Your task to perform on an android device: open app "Microsoft Excel" Image 0: 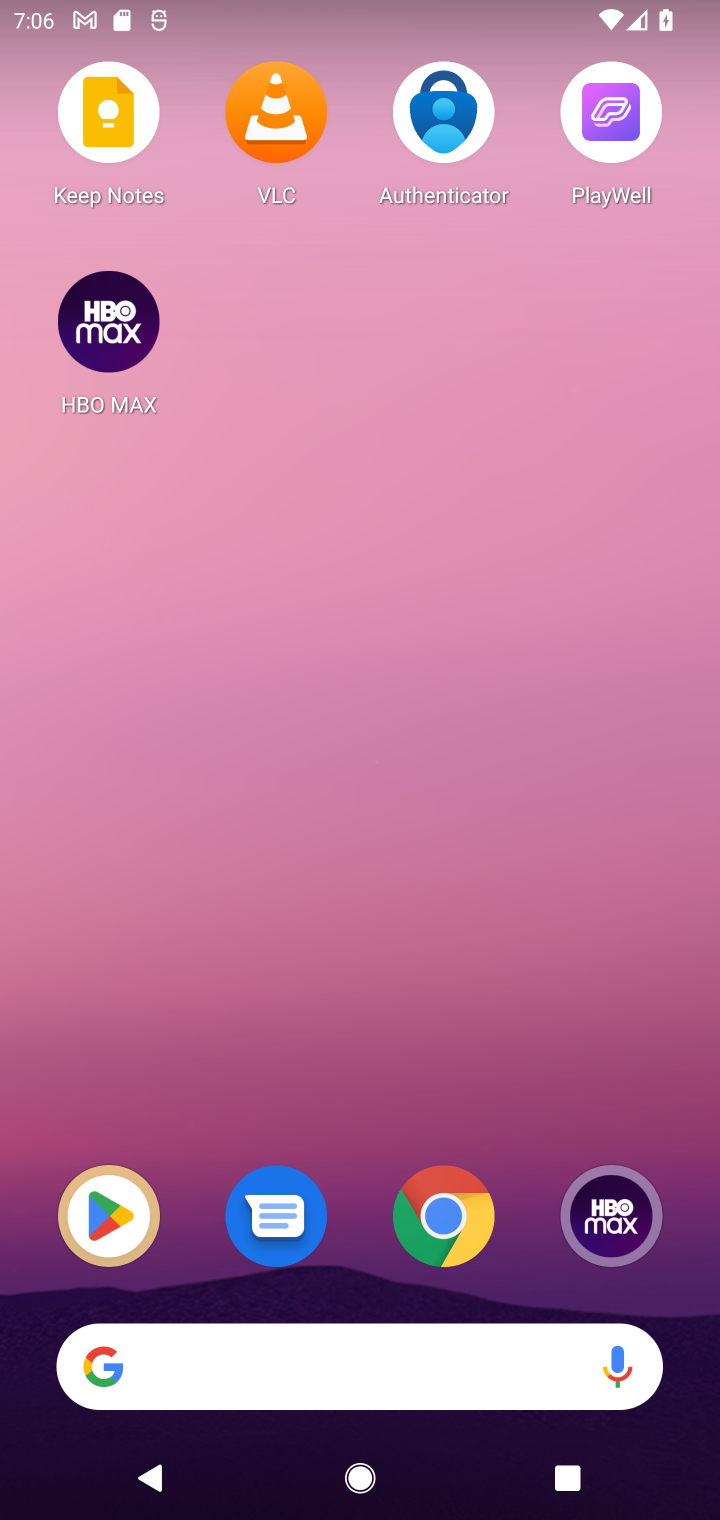
Step 0: press home button
Your task to perform on an android device: open app "Microsoft Excel" Image 1: 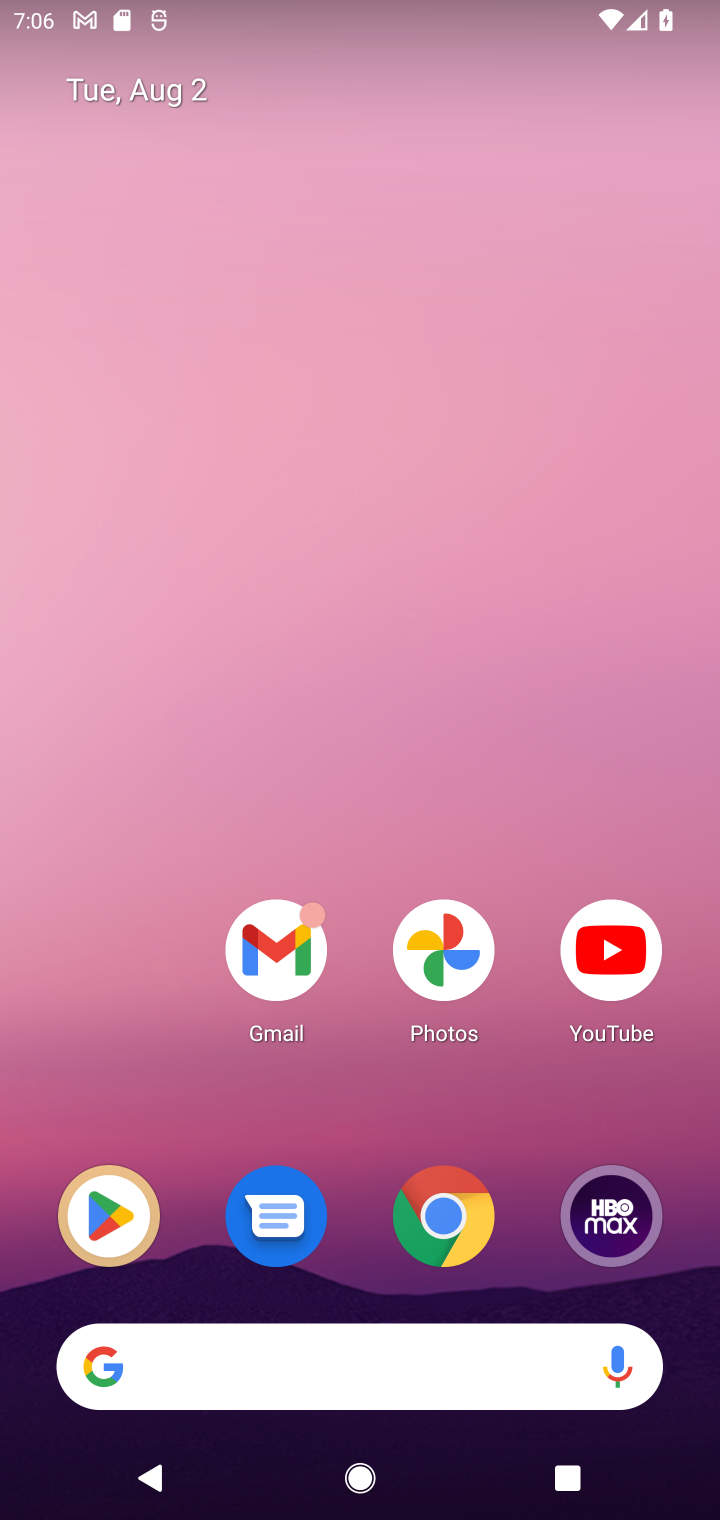
Step 1: click (115, 1212)
Your task to perform on an android device: open app "Microsoft Excel" Image 2: 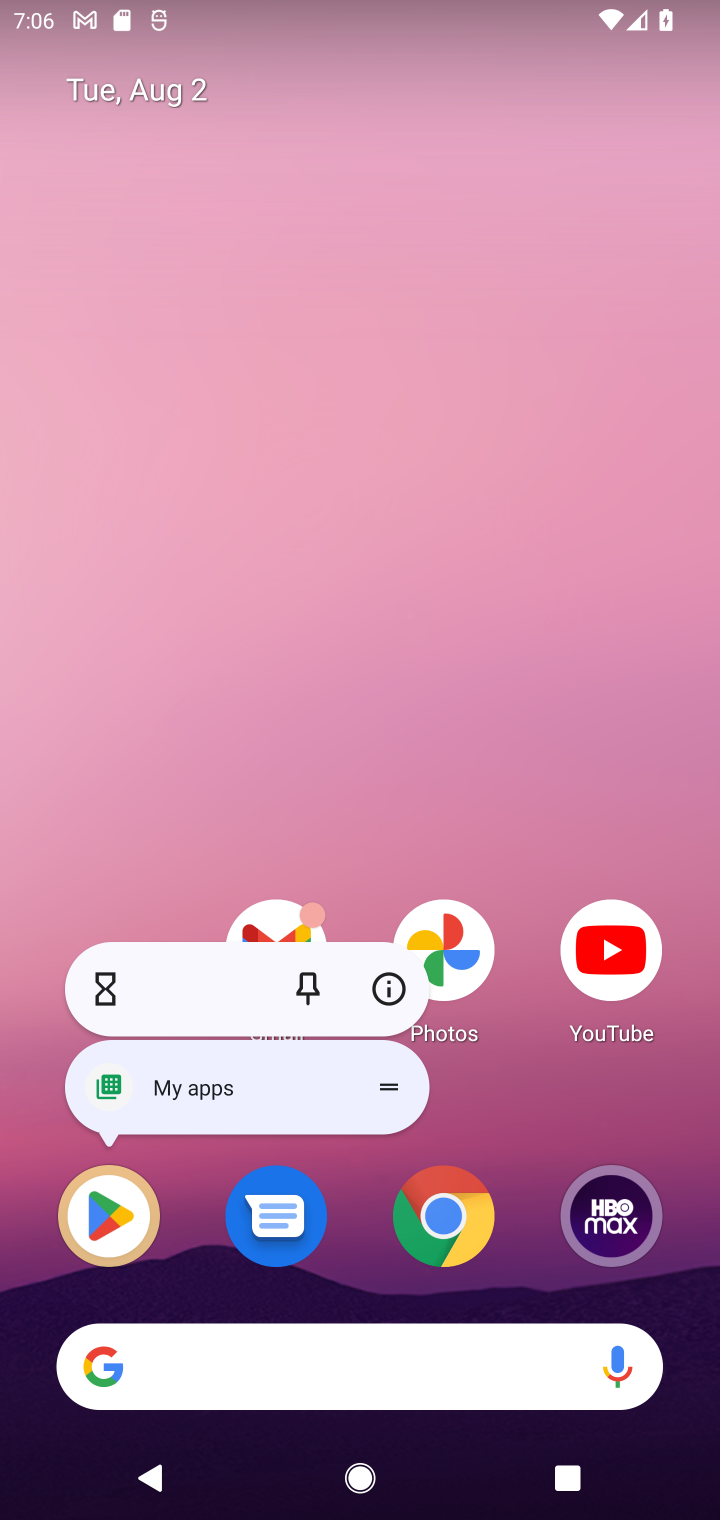
Step 2: click (115, 1212)
Your task to perform on an android device: open app "Microsoft Excel" Image 3: 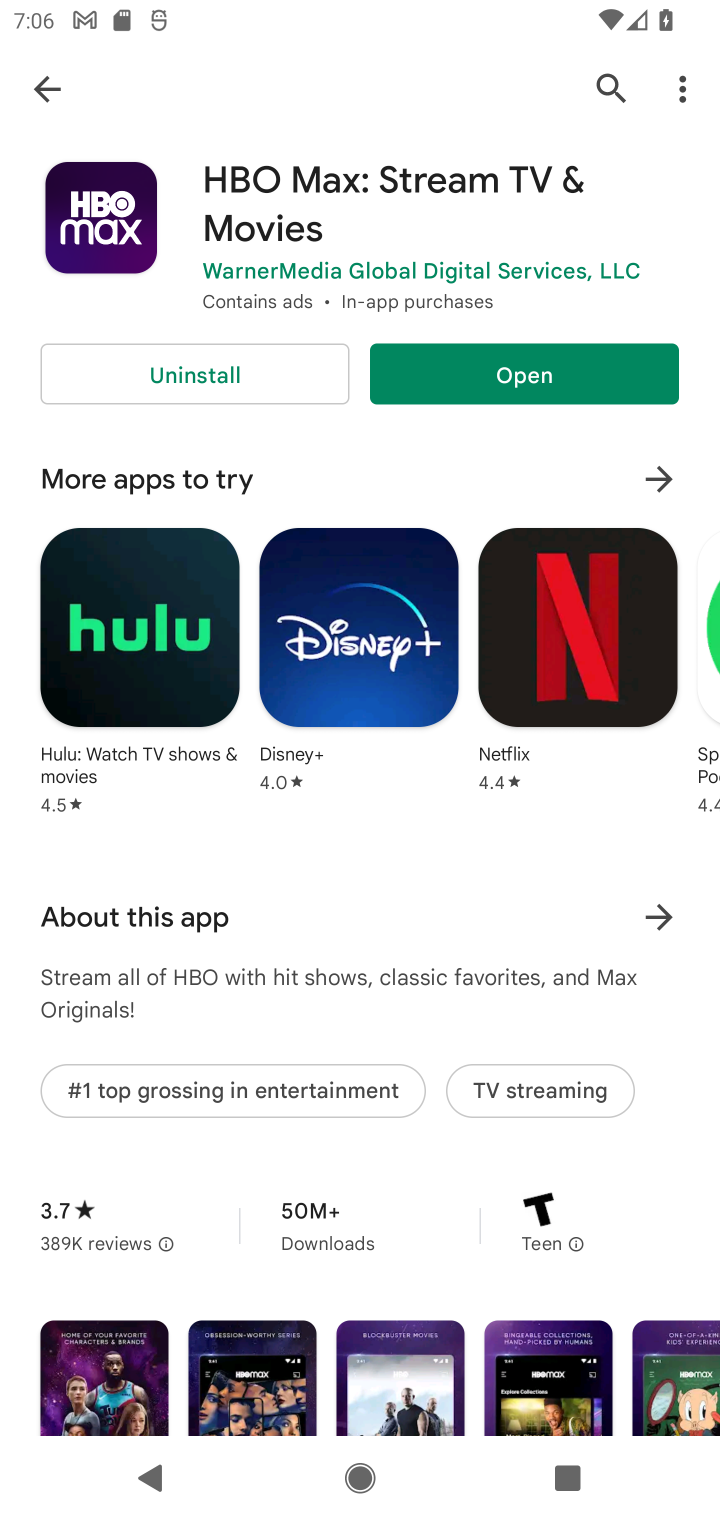
Step 3: click (611, 78)
Your task to perform on an android device: open app "Microsoft Excel" Image 4: 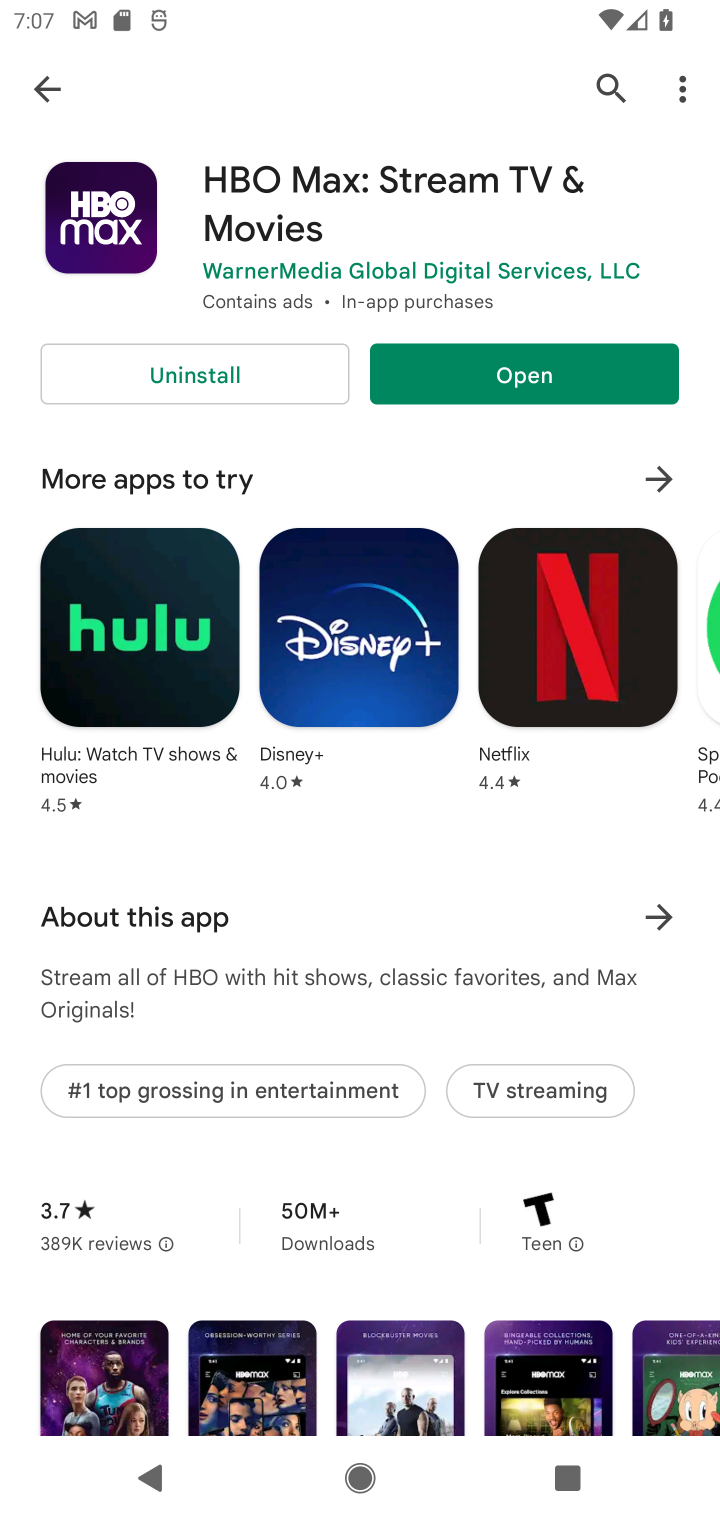
Step 4: click (598, 78)
Your task to perform on an android device: open app "Microsoft Excel" Image 5: 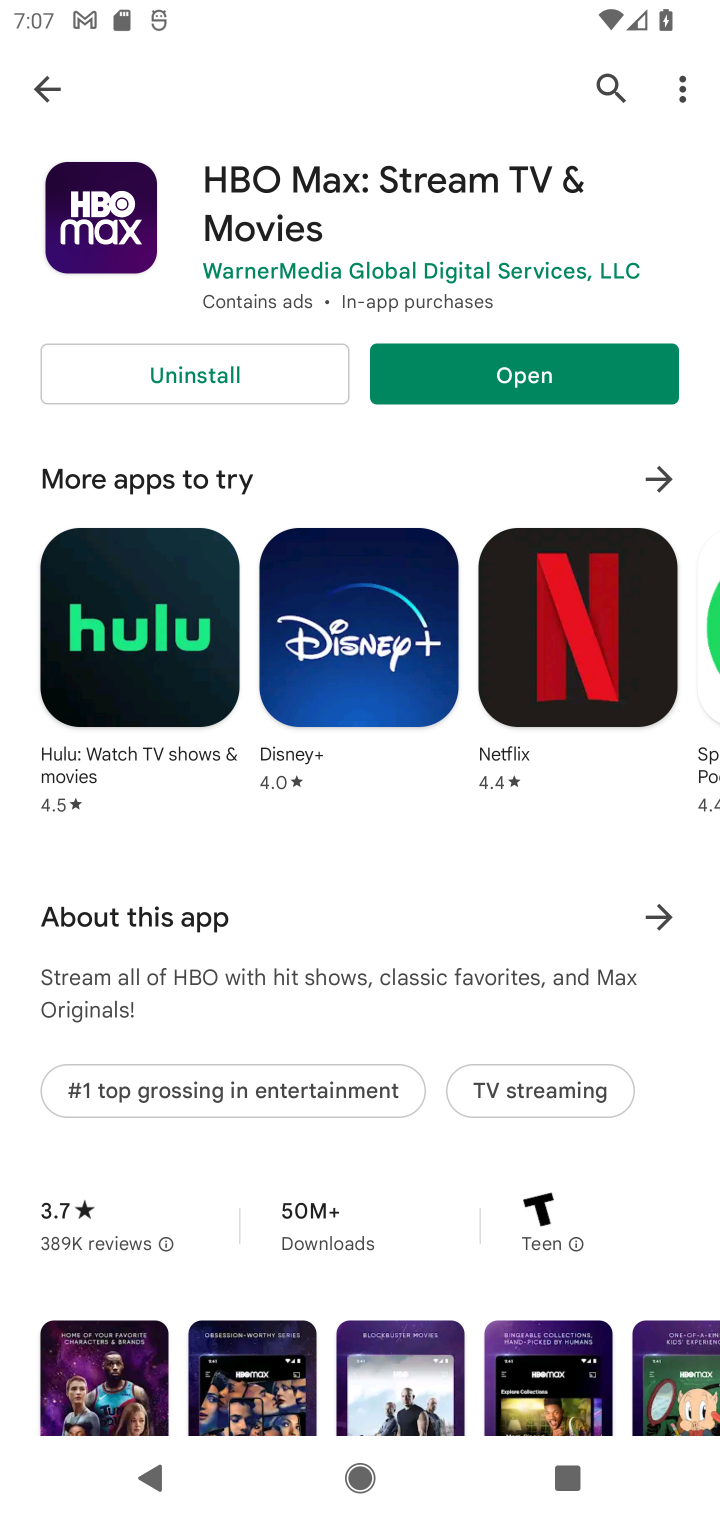
Step 5: click (607, 78)
Your task to perform on an android device: open app "Microsoft Excel" Image 6: 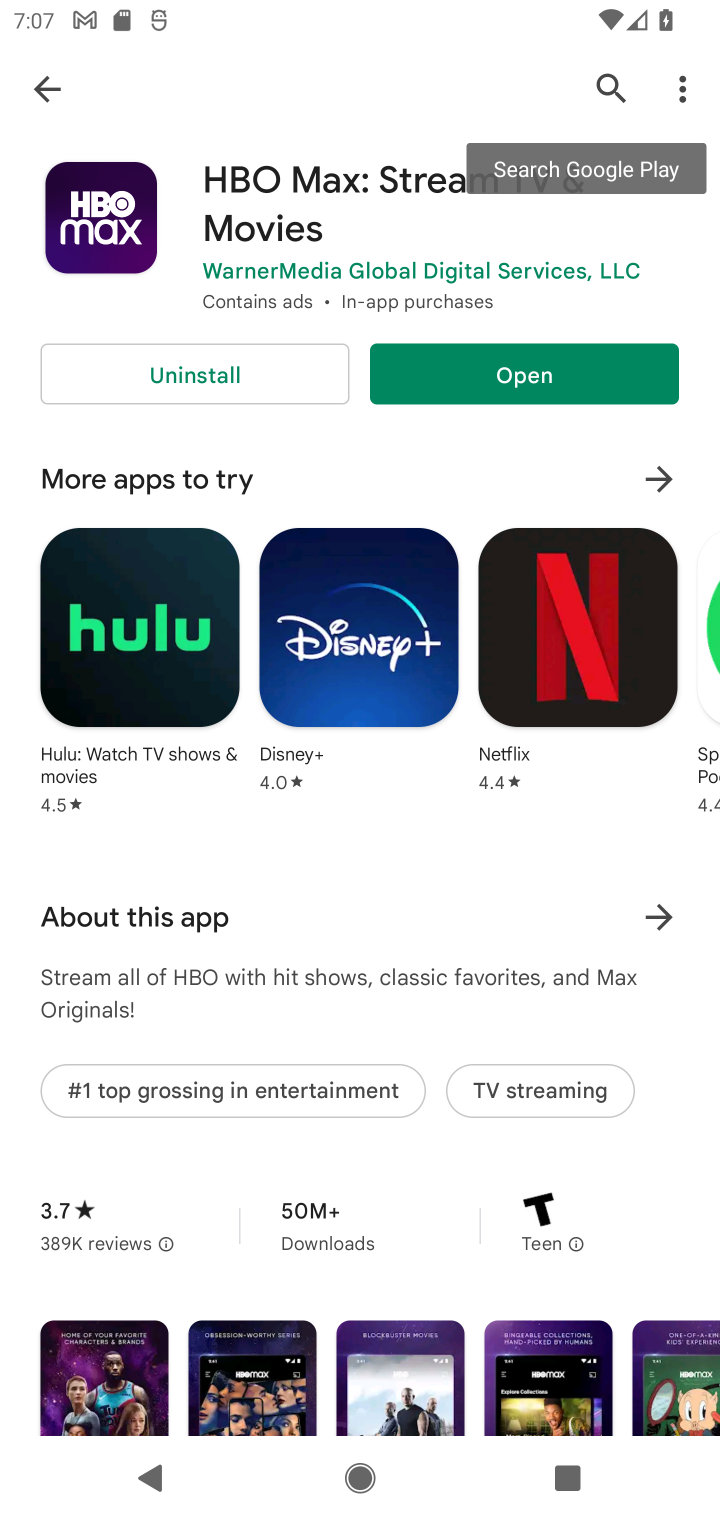
Step 6: click (607, 78)
Your task to perform on an android device: open app "Microsoft Excel" Image 7: 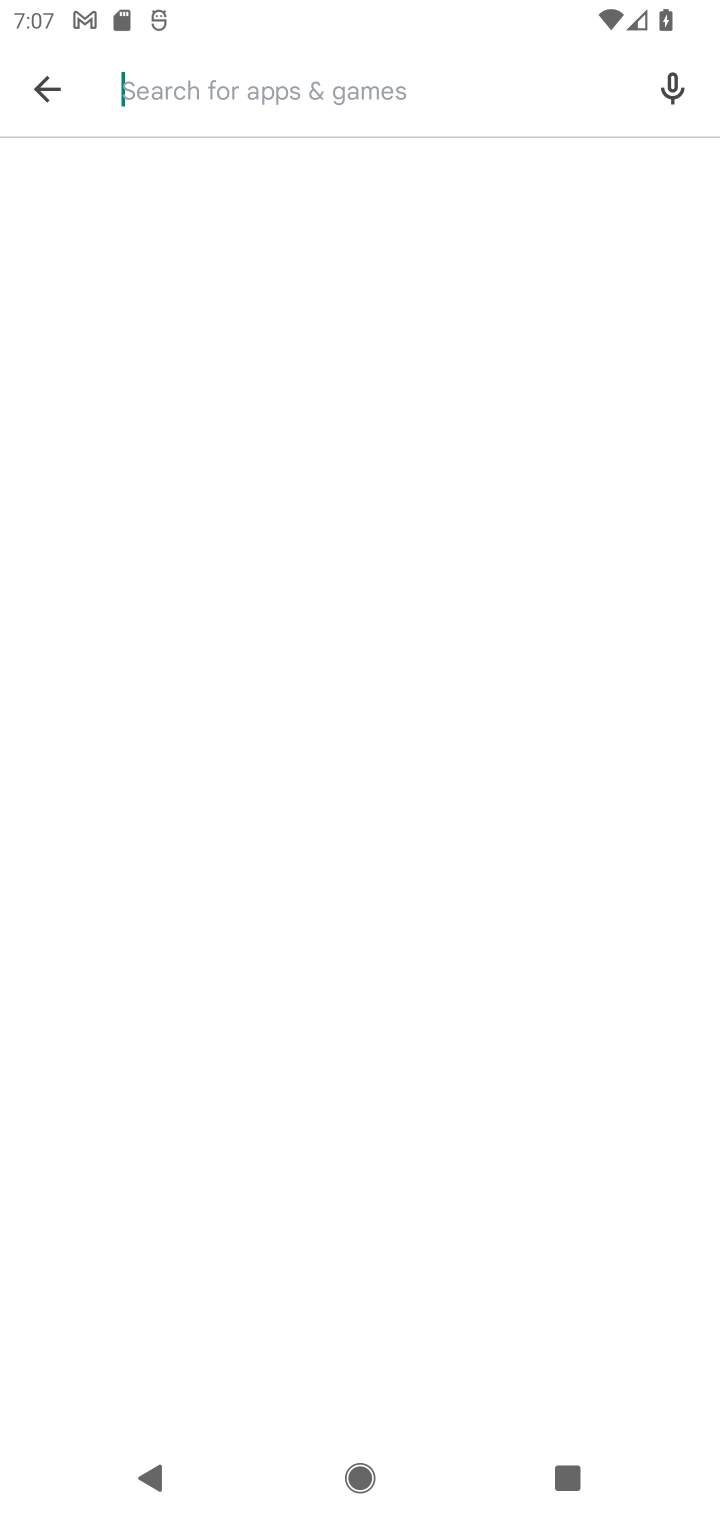
Step 7: click (50, 79)
Your task to perform on an android device: open app "Microsoft Excel" Image 8: 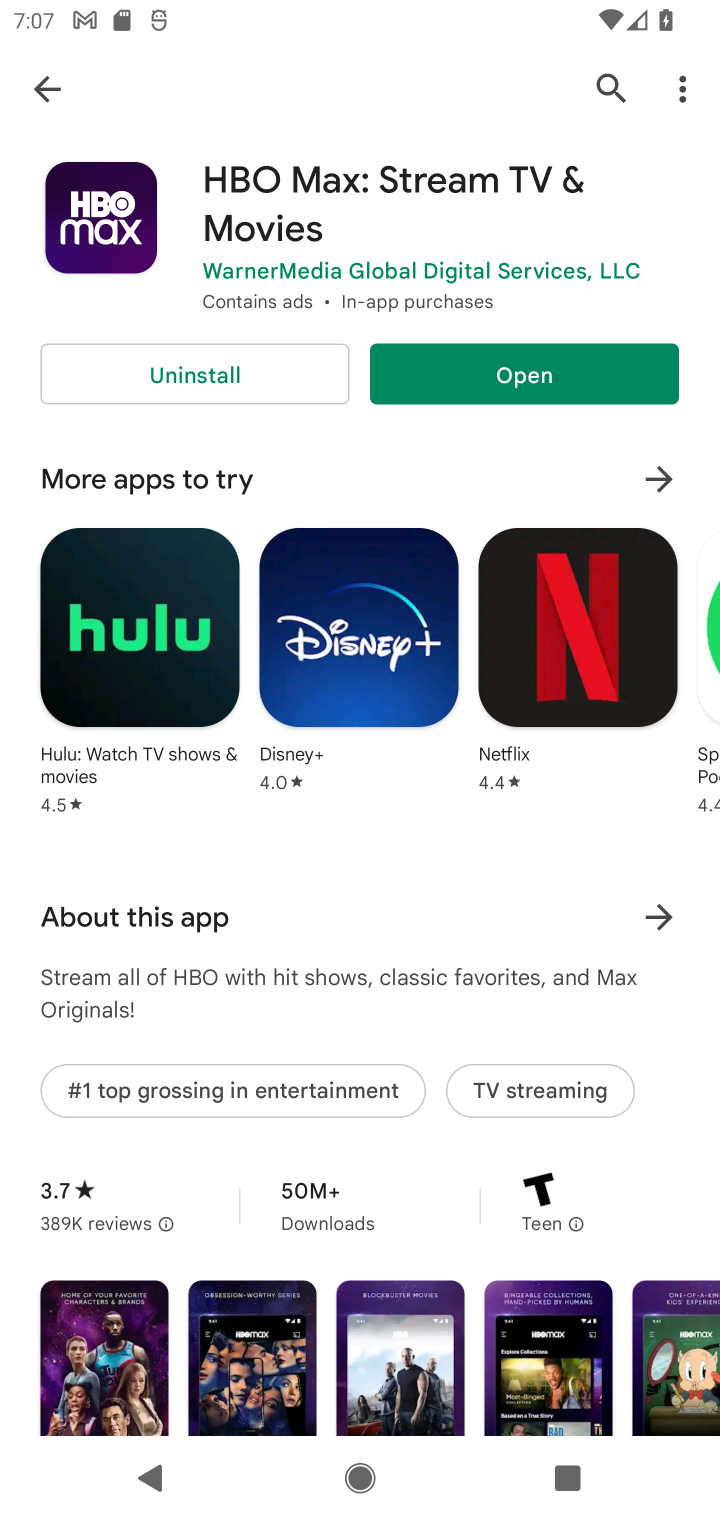
Step 8: click (605, 75)
Your task to perform on an android device: open app "Microsoft Excel" Image 9: 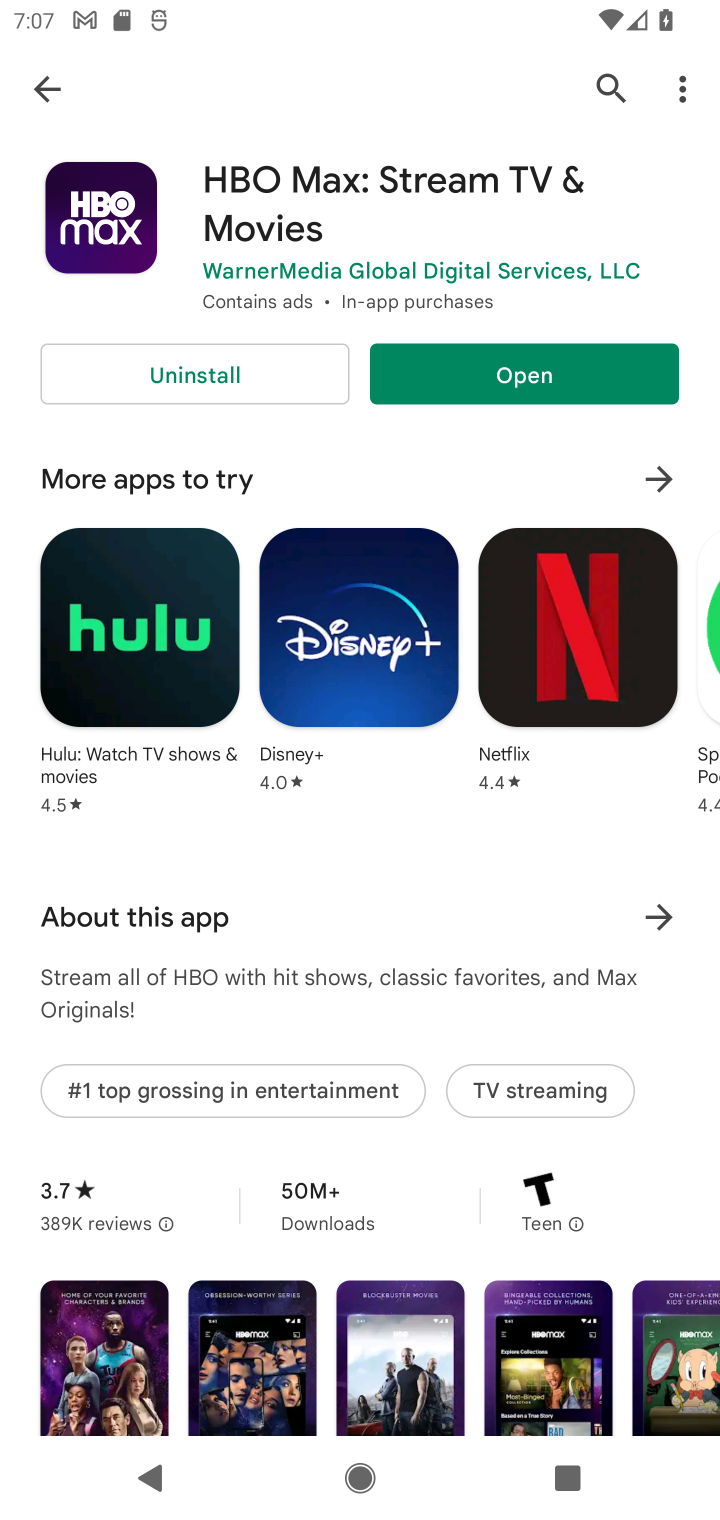
Step 9: click (61, 76)
Your task to perform on an android device: open app "Microsoft Excel" Image 10: 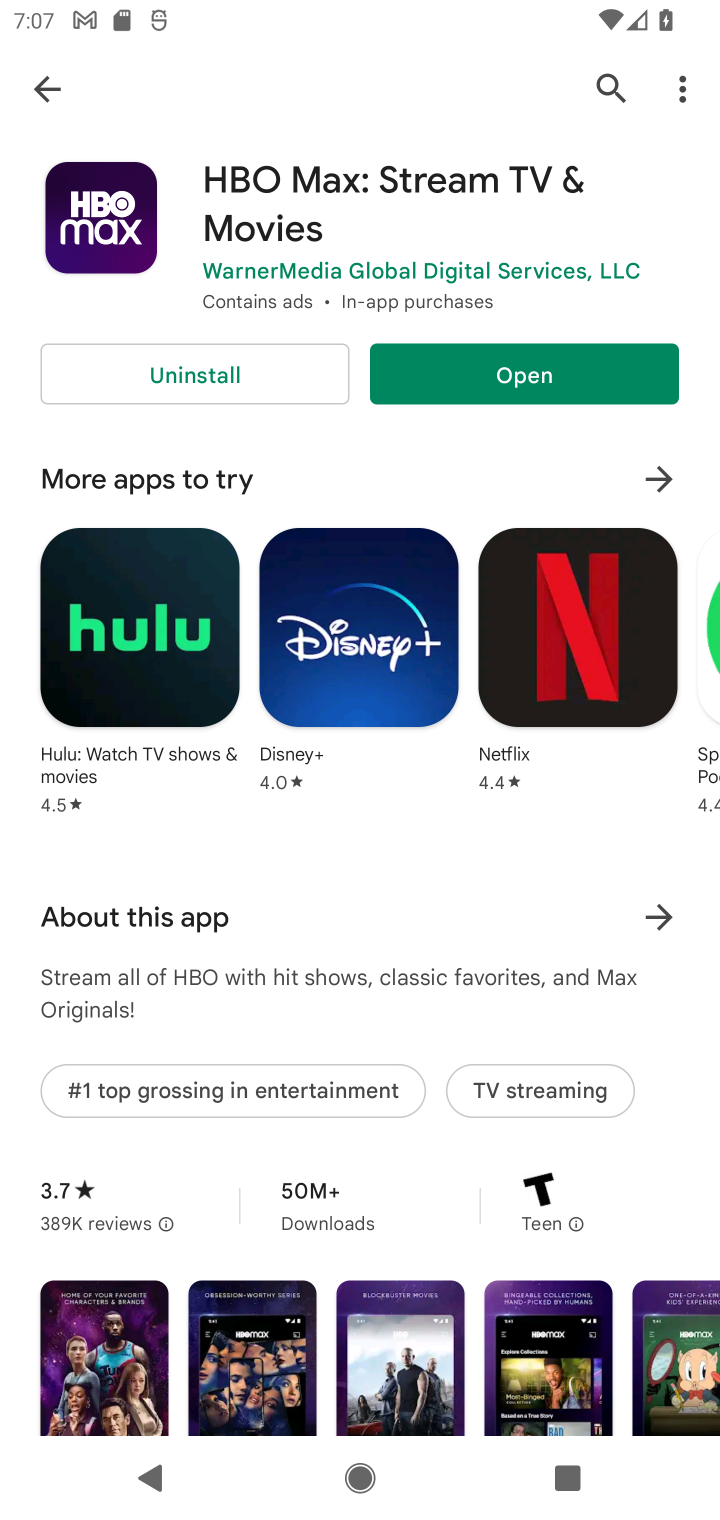
Step 10: press back button
Your task to perform on an android device: open app "Microsoft Excel" Image 11: 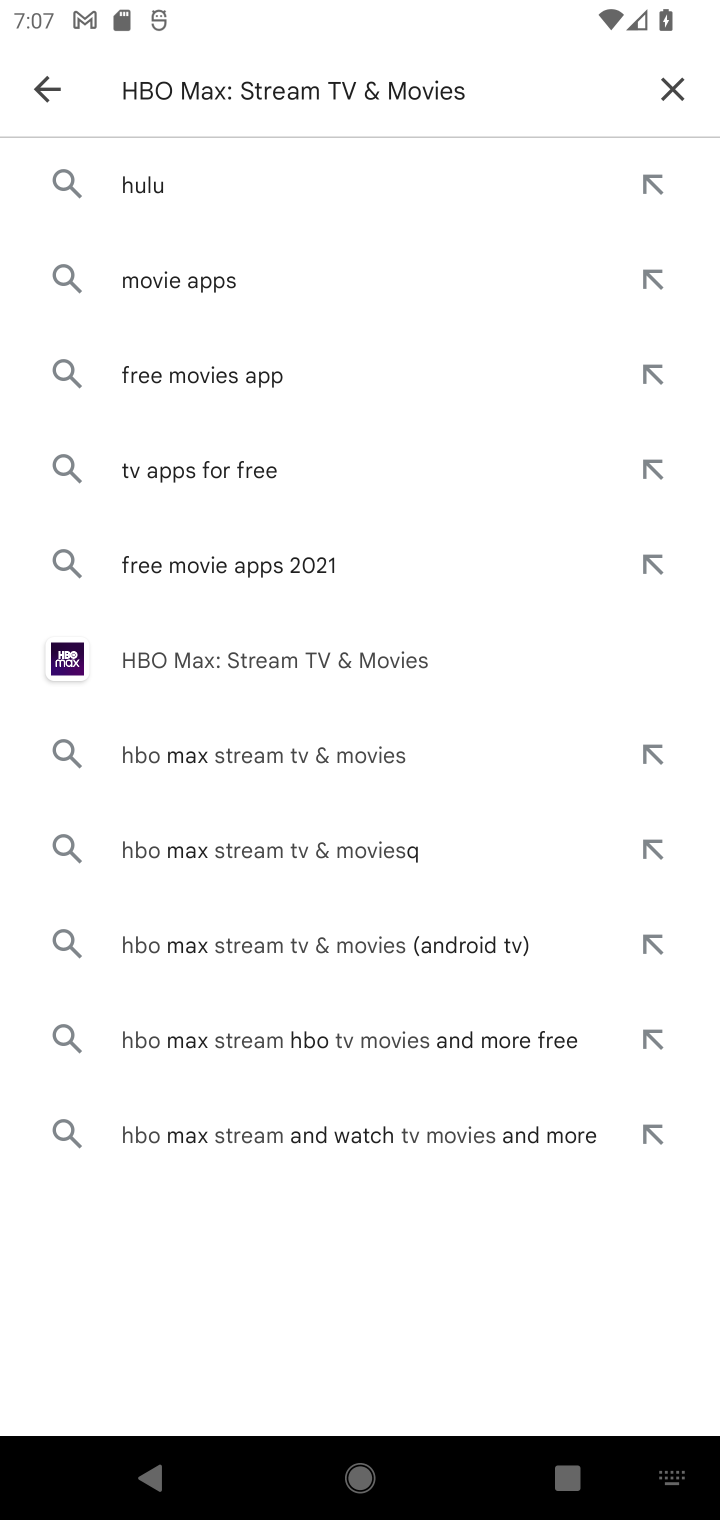
Step 11: click (671, 74)
Your task to perform on an android device: open app "Microsoft Excel" Image 12: 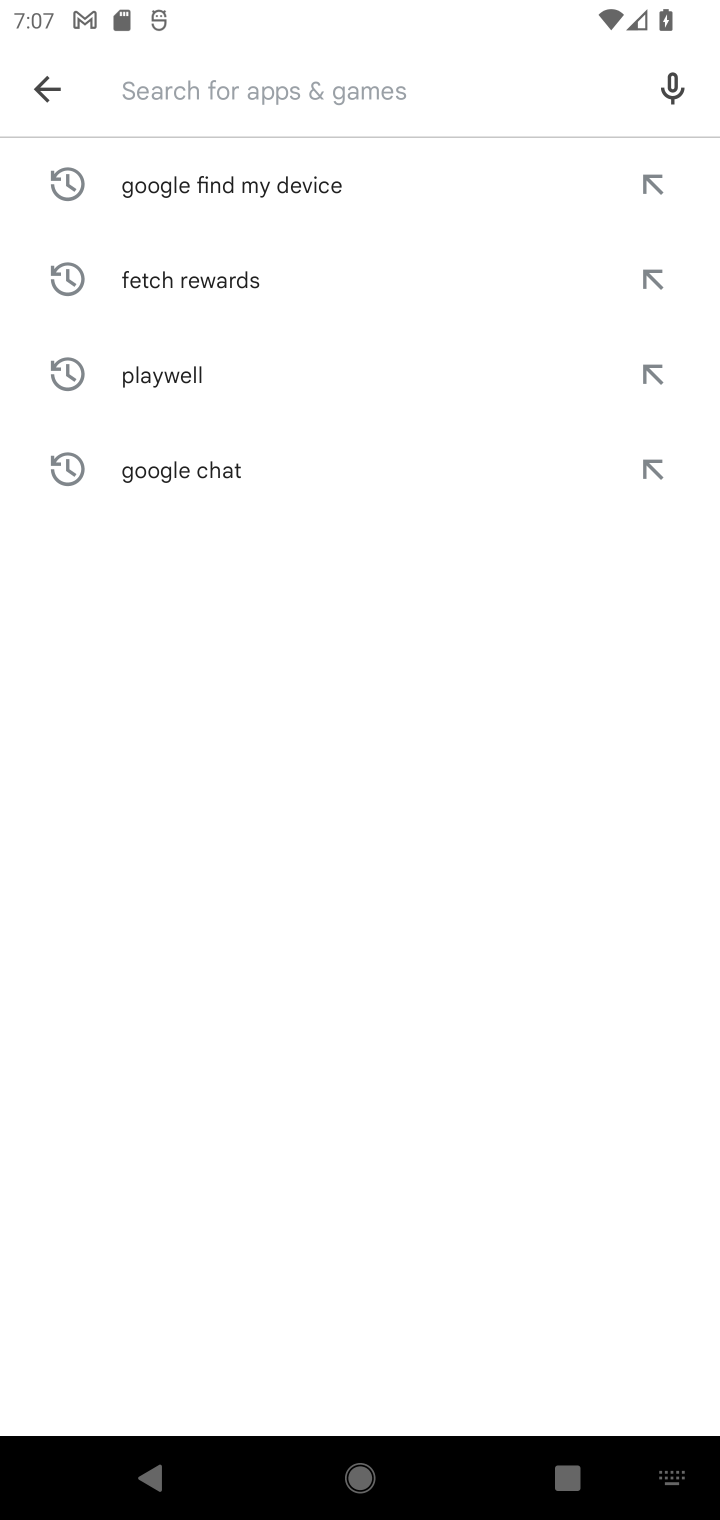
Step 12: type "Microsoft Excel"
Your task to perform on an android device: open app "Microsoft Excel" Image 13: 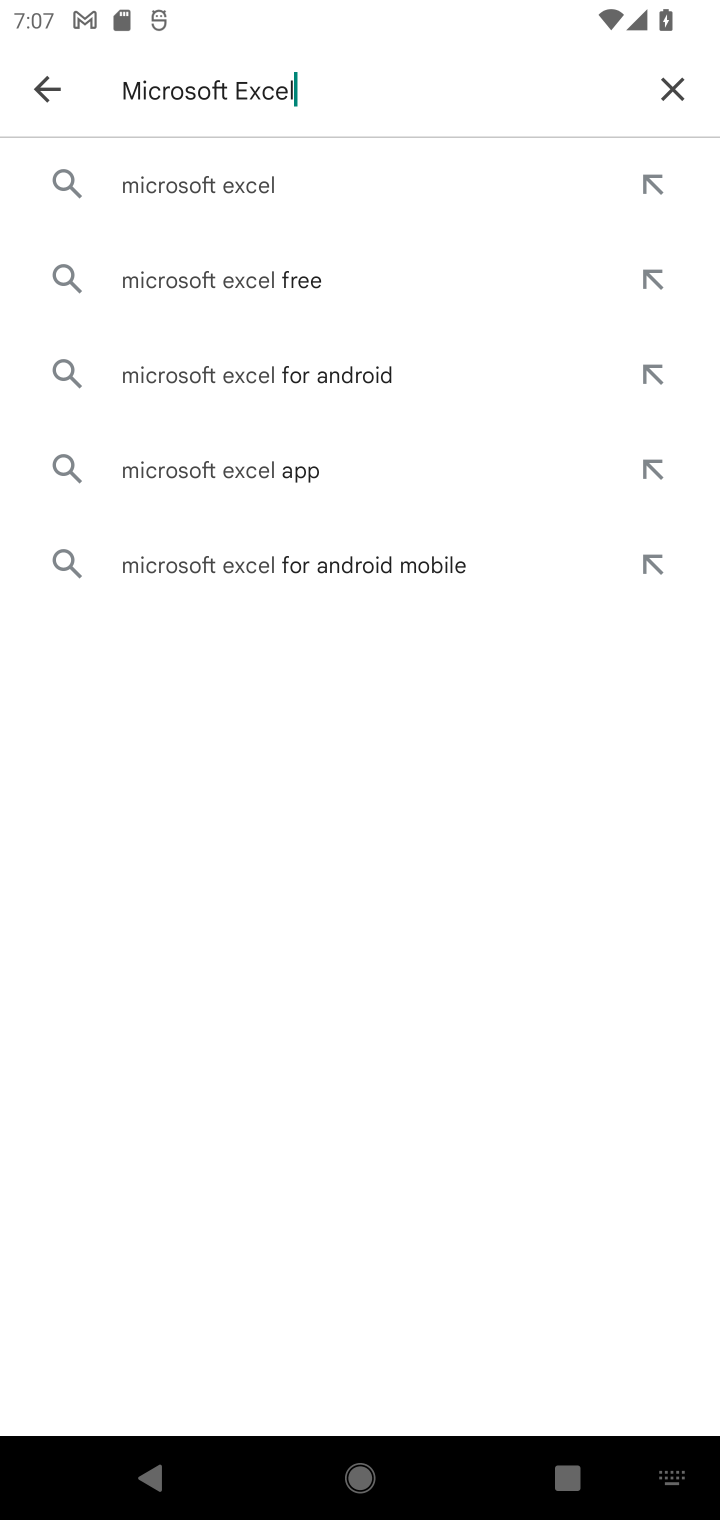
Step 13: click (271, 183)
Your task to perform on an android device: open app "Microsoft Excel" Image 14: 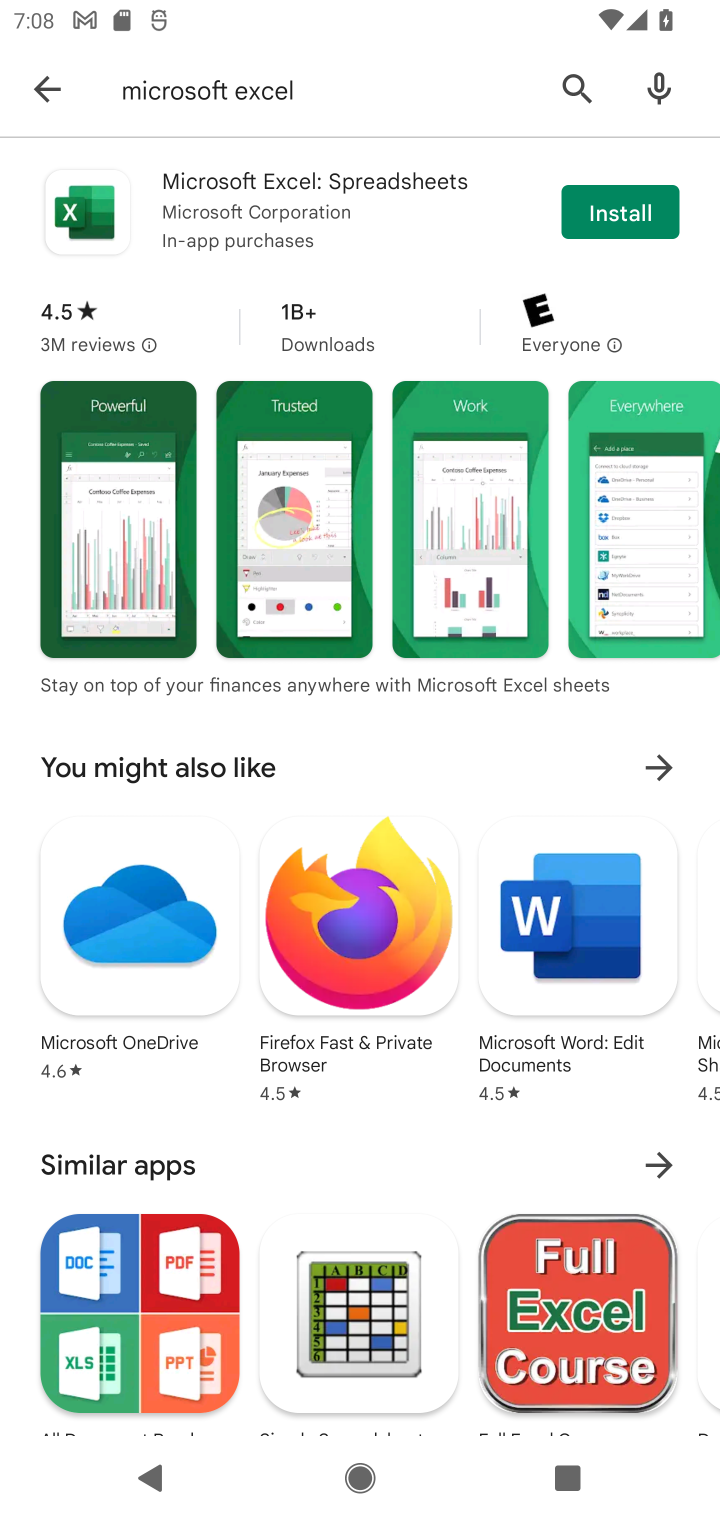
Step 14: task complete